Your task to perform on an android device: turn on improve location accuracy Image 0: 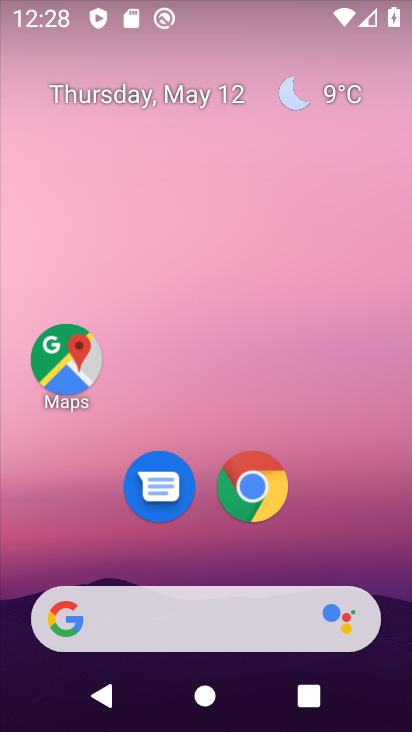
Step 0: drag from (194, 576) to (253, 190)
Your task to perform on an android device: turn on improve location accuracy Image 1: 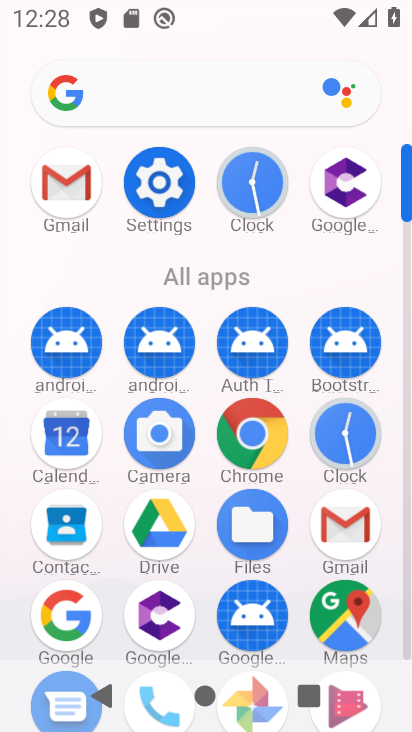
Step 1: click (172, 189)
Your task to perform on an android device: turn on improve location accuracy Image 2: 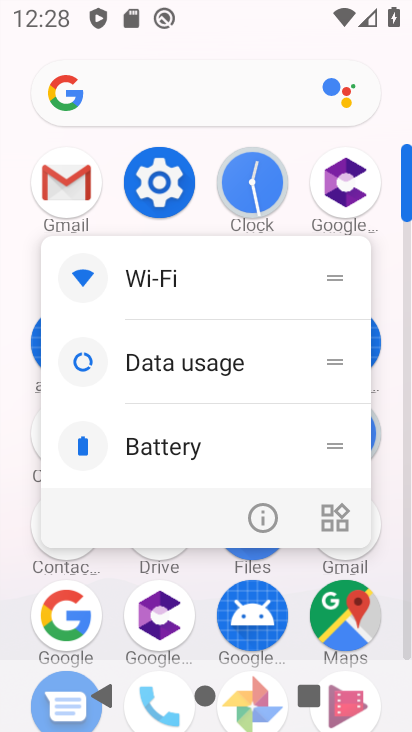
Step 2: click (161, 179)
Your task to perform on an android device: turn on improve location accuracy Image 3: 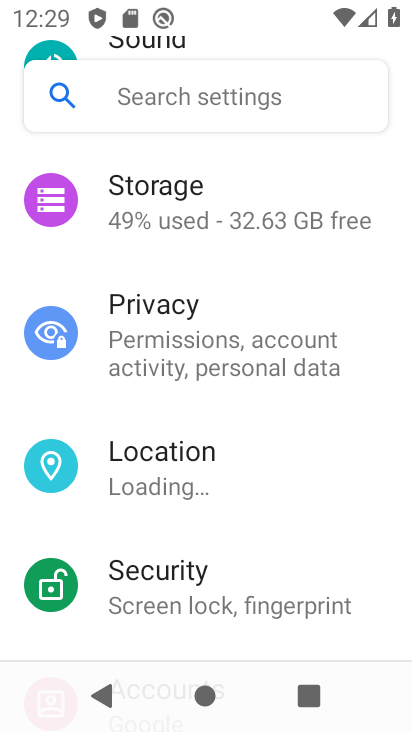
Step 3: drag from (208, 612) to (210, 270)
Your task to perform on an android device: turn on improve location accuracy Image 4: 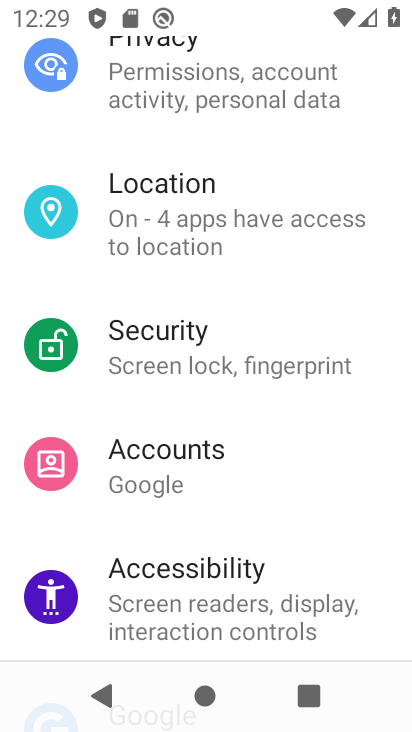
Step 4: drag from (199, 611) to (229, 306)
Your task to perform on an android device: turn on improve location accuracy Image 5: 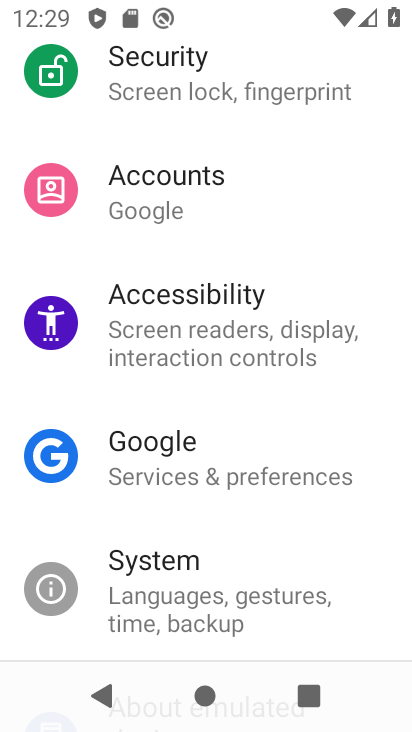
Step 5: drag from (212, 639) to (258, 325)
Your task to perform on an android device: turn on improve location accuracy Image 6: 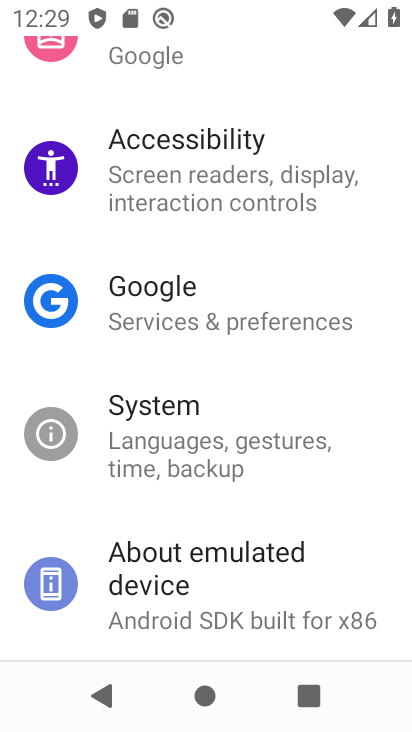
Step 6: drag from (252, 278) to (221, 630)
Your task to perform on an android device: turn on improve location accuracy Image 7: 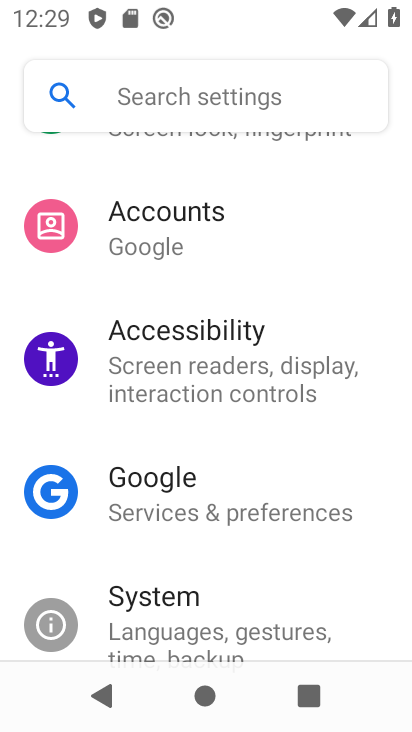
Step 7: drag from (231, 204) to (232, 548)
Your task to perform on an android device: turn on improve location accuracy Image 8: 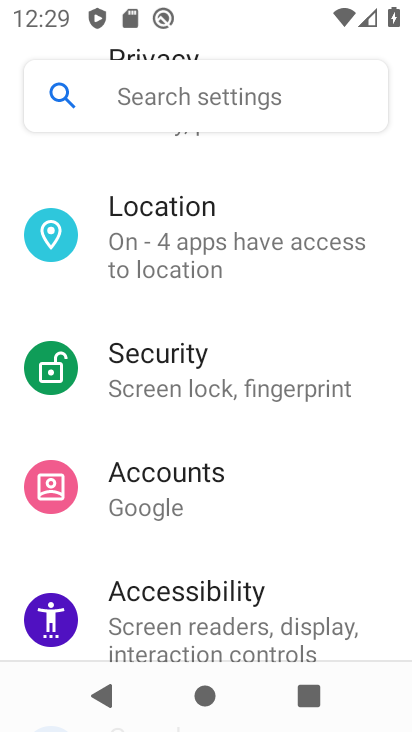
Step 8: click (185, 243)
Your task to perform on an android device: turn on improve location accuracy Image 9: 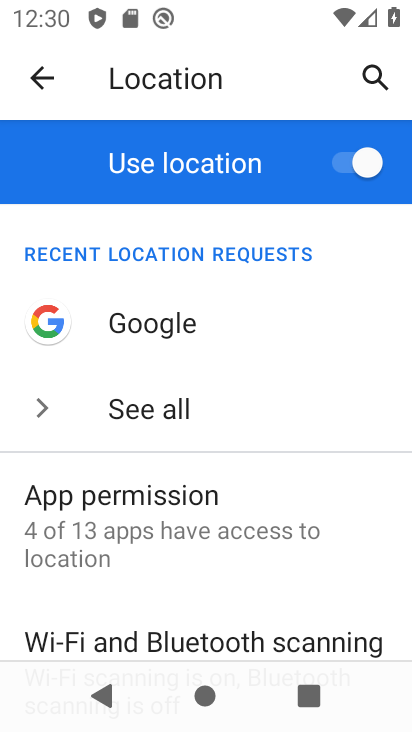
Step 9: drag from (121, 653) to (160, 345)
Your task to perform on an android device: turn on improve location accuracy Image 10: 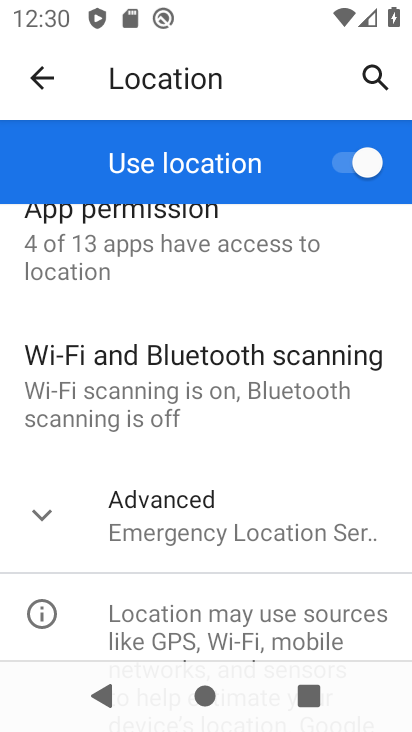
Step 10: click (160, 513)
Your task to perform on an android device: turn on improve location accuracy Image 11: 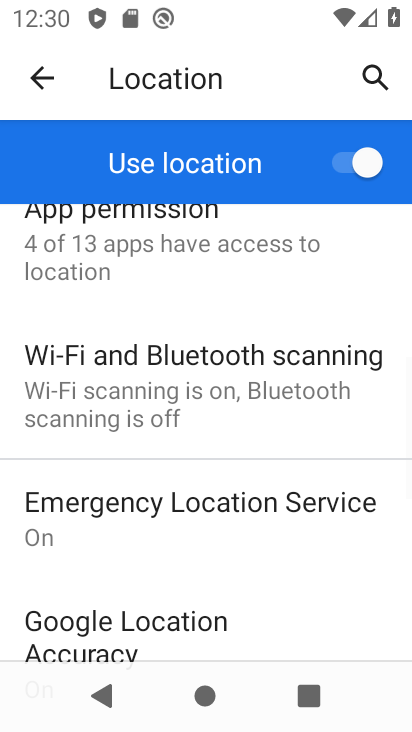
Step 11: task complete